Your task to perform on an android device: Open Google Chrome Image 0: 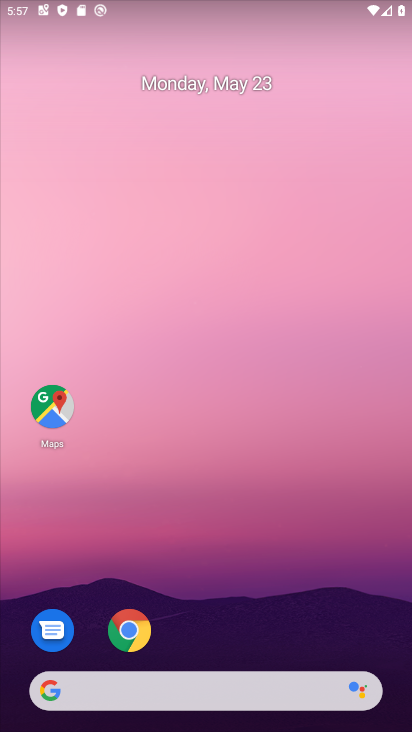
Step 0: drag from (245, 263) to (233, 36)
Your task to perform on an android device: Open Google Chrome Image 1: 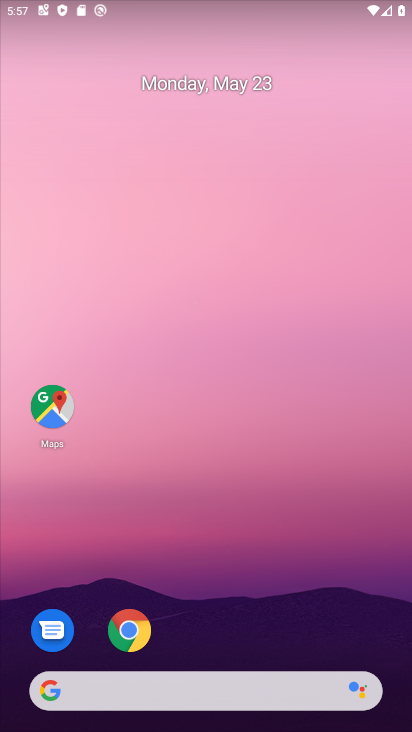
Step 1: drag from (356, 621) to (344, 31)
Your task to perform on an android device: Open Google Chrome Image 2: 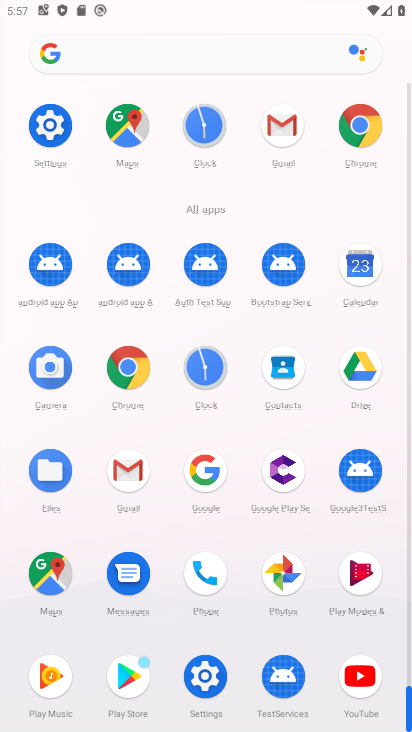
Step 2: click (362, 123)
Your task to perform on an android device: Open Google Chrome Image 3: 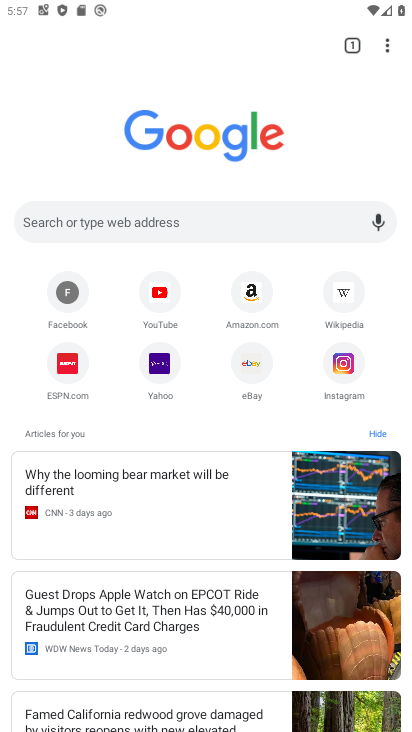
Step 3: task complete